Your task to perform on an android device: Open Google Chrome and open the bookmarks view Image 0: 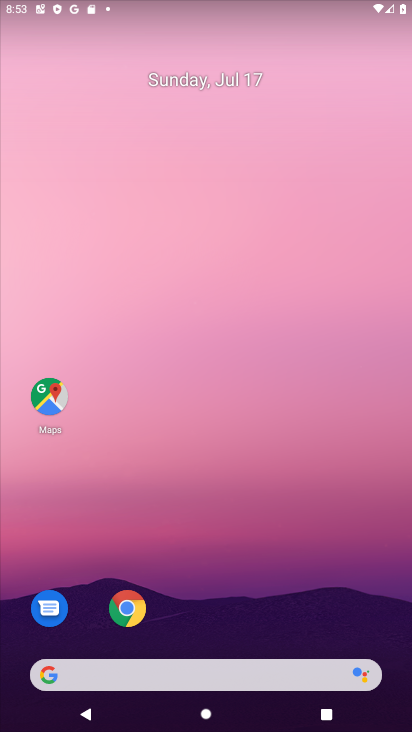
Step 0: click (119, 618)
Your task to perform on an android device: Open Google Chrome and open the bookmarks view Image 1: 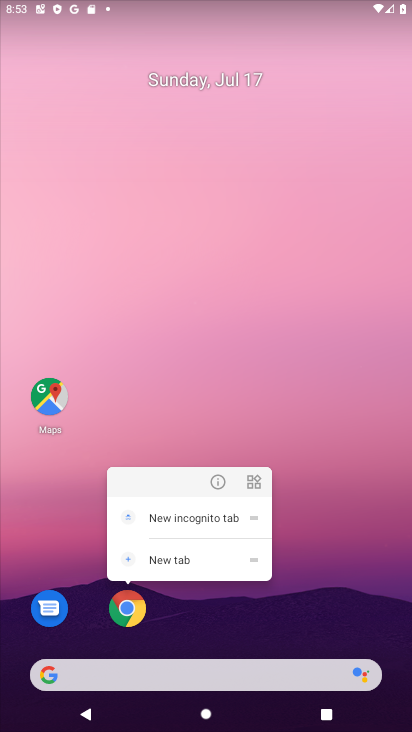
Step 1: click (125, 619)
Your task to perform on an android device: Open Google Chrome and open the bookmarks view Image 2: 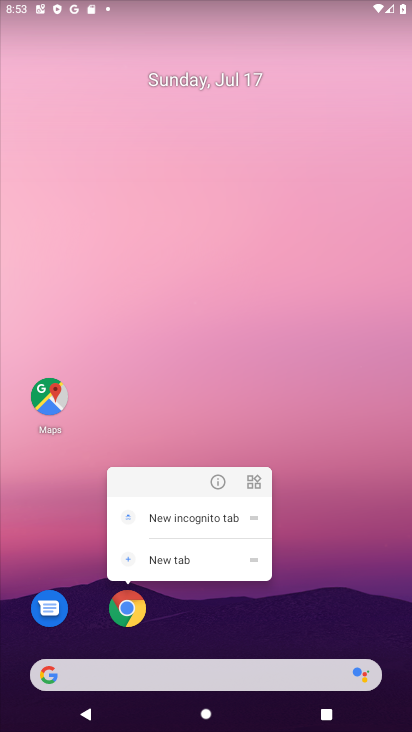
Step 2: click (125, 609)
Your task to perform on an android device: Open Google Chrome and open the bookmarks view Image 3: 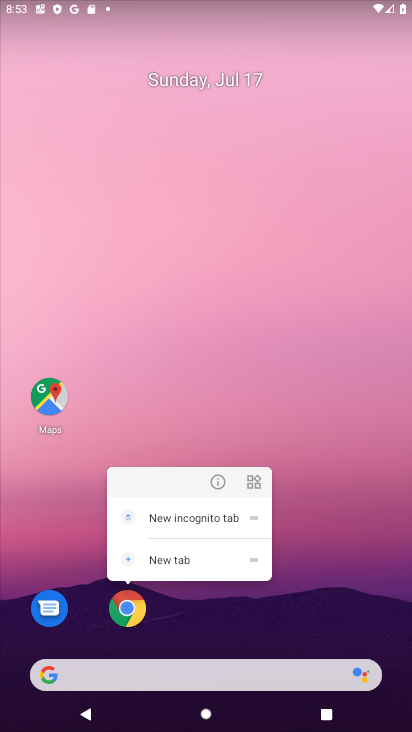
Step 3: click (128, 613)
Your task to perform on an android device: Open Google Chrome and open the bookmarks view Image 4: 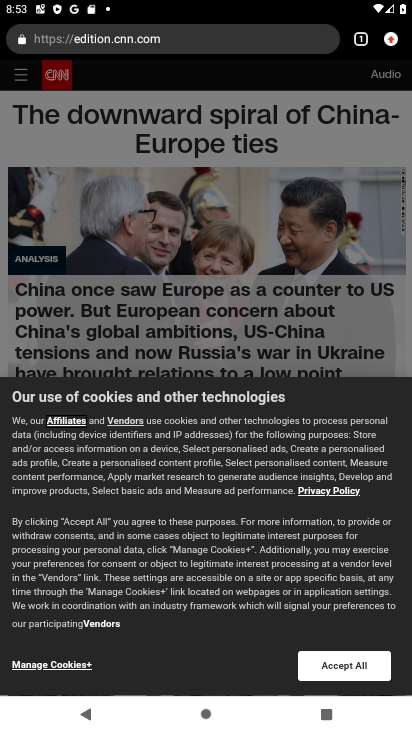
Step 4: click (386, 37)
Your task to perform on an android device: Open Google Chrome and open the bookmarks view Image 5: 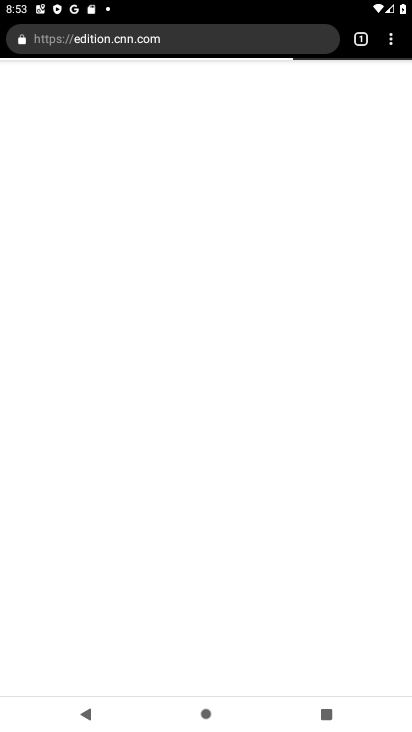
Step 5: click (389, 41)
Your task to perform on an android device: Open Google Chrome and open the bookmarks view Image 6: 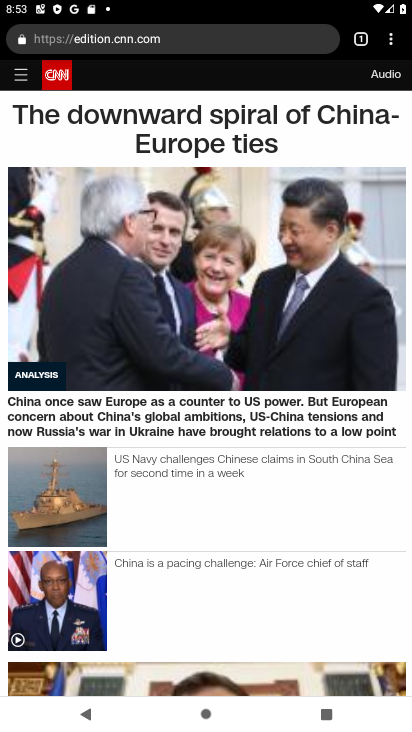
Step 6: click (389, 41)
Your task to perform on an android device: Open Google Chrome and open the bookmarks view Image 7: 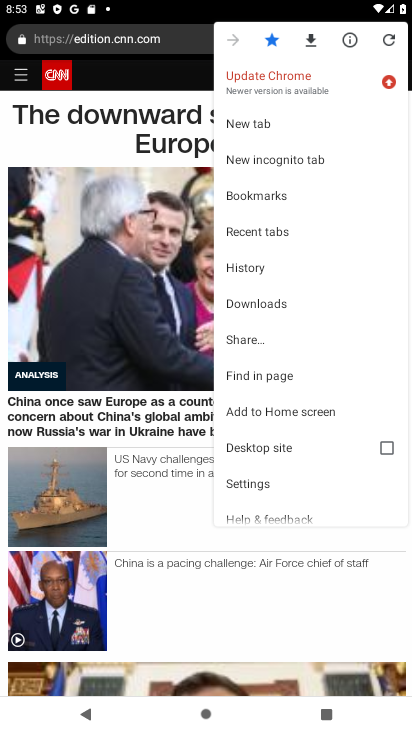
Step 7: click (249, 198)
Your task to perform on an android device: Open Google Chrome and open the bookmarks view Image 8: 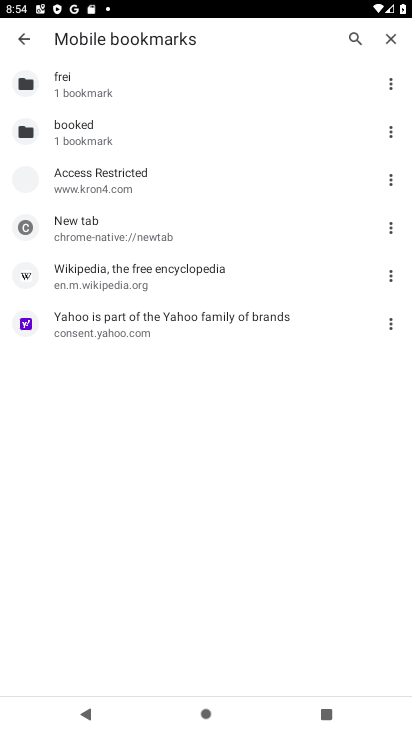
Step 8: task complete